Your task to perform on an android device: empty trash in the gmail app Image 0: 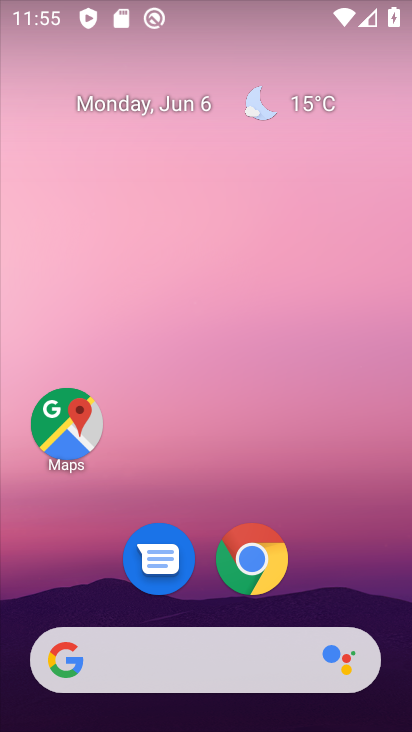
Step 0: drag from (333, 545) to (284, 77)
Your task to perform on an android device: empty trash in the gmail app Image 1: 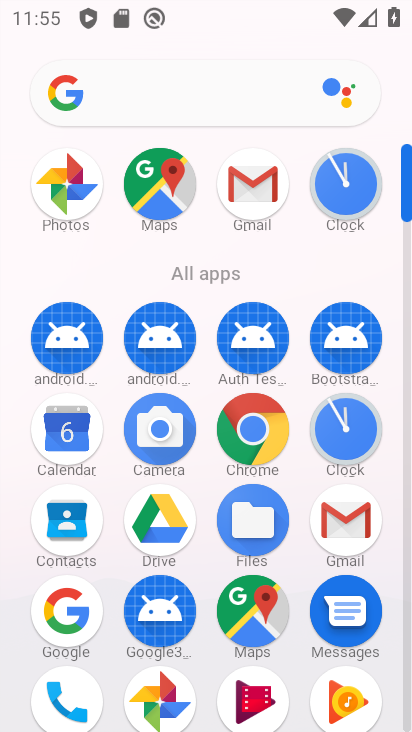
Step 1: click (263, 179)
Your task to perform on an android device: empty trash in the gmail app Image 2: 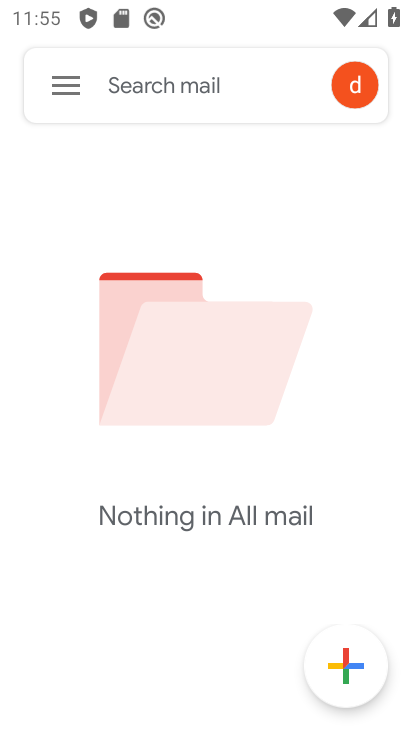
Step 2: click (79, 76)
Your task to perform on an android device: empty trash in the gmail app Image 3: 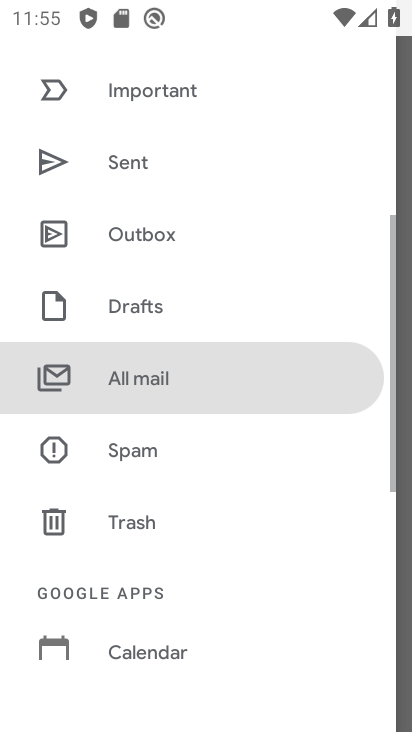
Step 3: click (208, 516)
Your task to perform on an android device: empty trash in the gmail app Image 4: 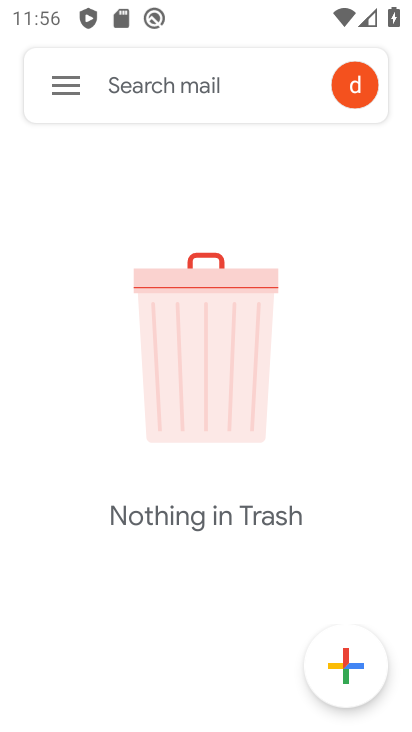
Step 4: task complete